Your task to perform on an android device: Go to eBay Image 0: 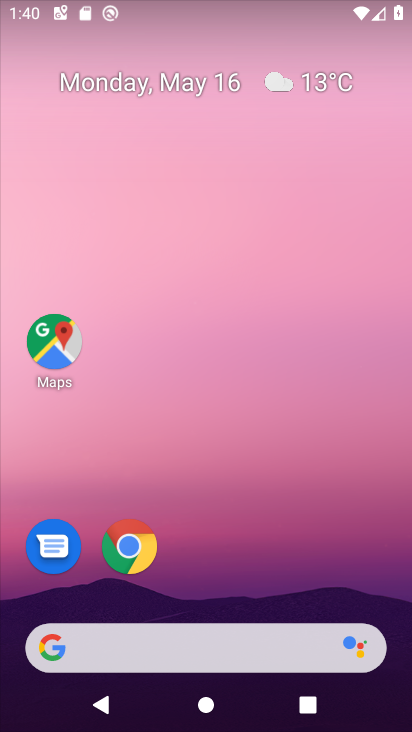
Step 0: click (121, 542)
Your task to perform on an android device: Go to eBay Image 1: 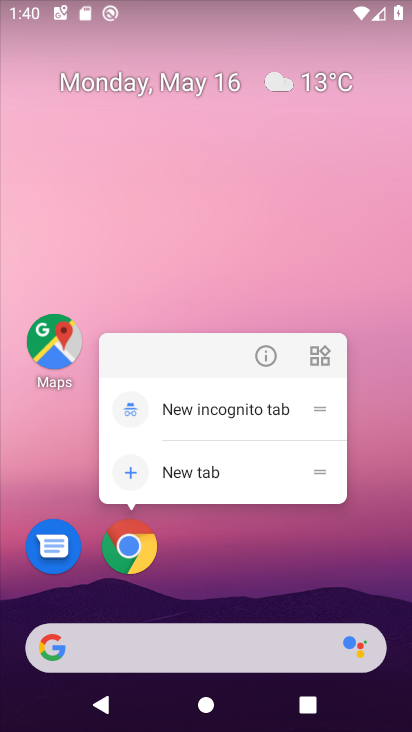
Step 1: click (132, 550)
Your task to perform on an android device: Go to eBay Image 2: 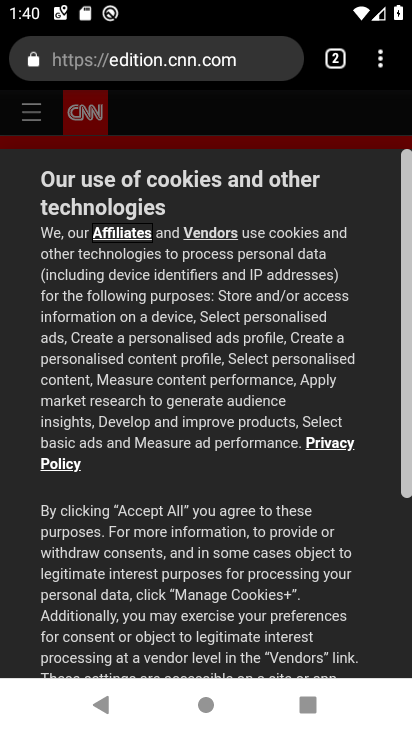
Step 2: click (381, 66)
Your task to perform on an android device: Go to eBay Image 3: 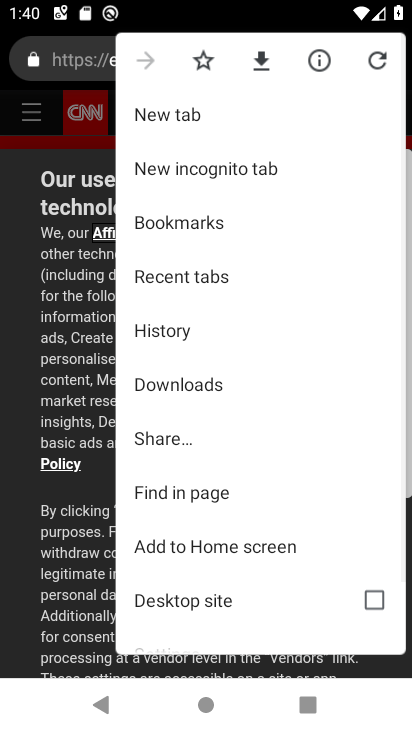
Step 3: click (170, 110)
Your task to perform on an android device: Go to eBay Image 4: 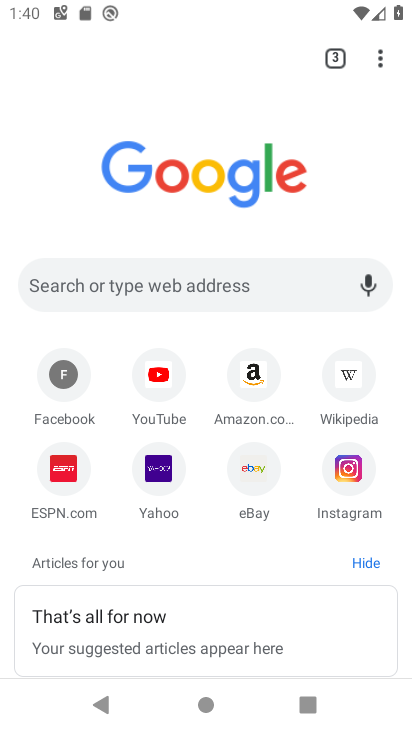
Step 4: click (137, 274)
Your task to perform on an android device: Go to eBay Image 5: 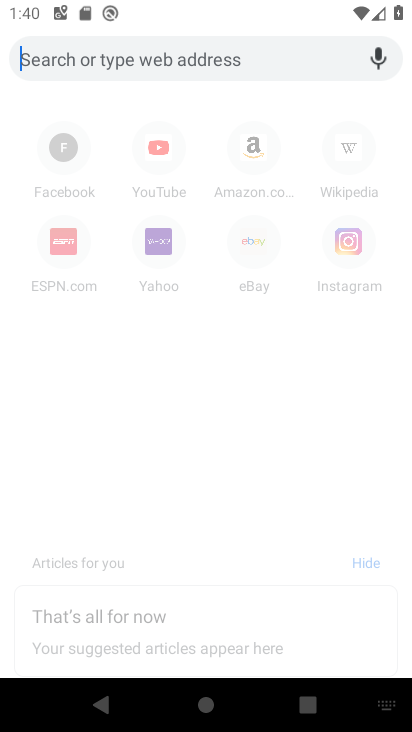
Step 5: type "eBay"
Your task to perform on an android device: Go to eBay Image 6: 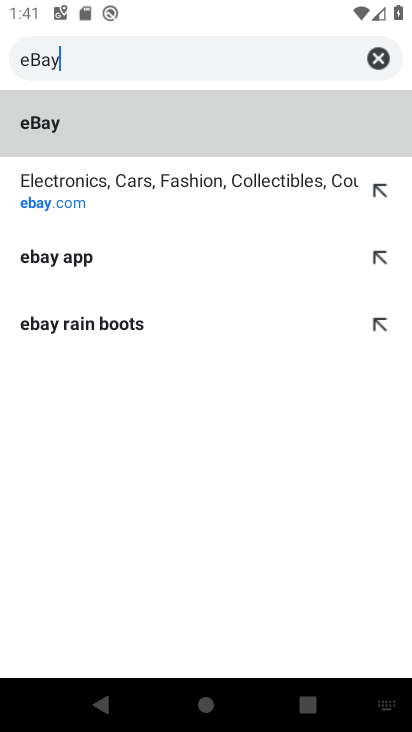
Step 6: click (52, 119)
Your task to perform on an android device: Go to eBay Image 7: 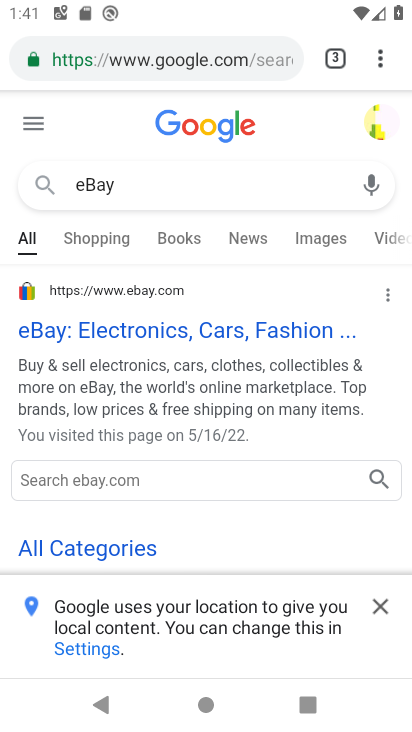
Step 7: click (152, 329)
Your task to perform on an android device: Go to eBay Image 8: 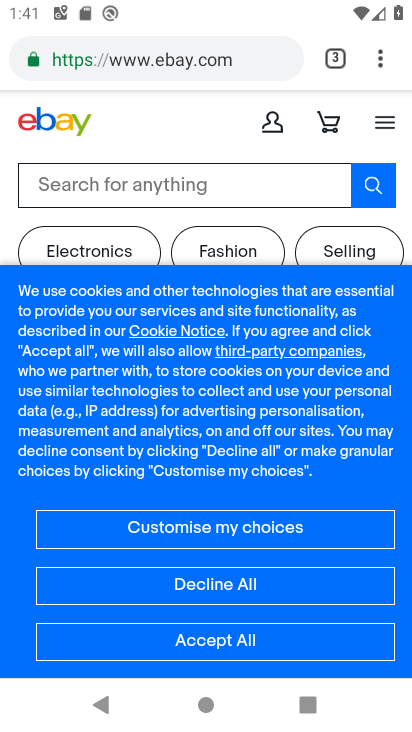
Step 8: task complete